Your task to perform on an android device: open app "The Home Depot" (install if not already installed) Image 0: 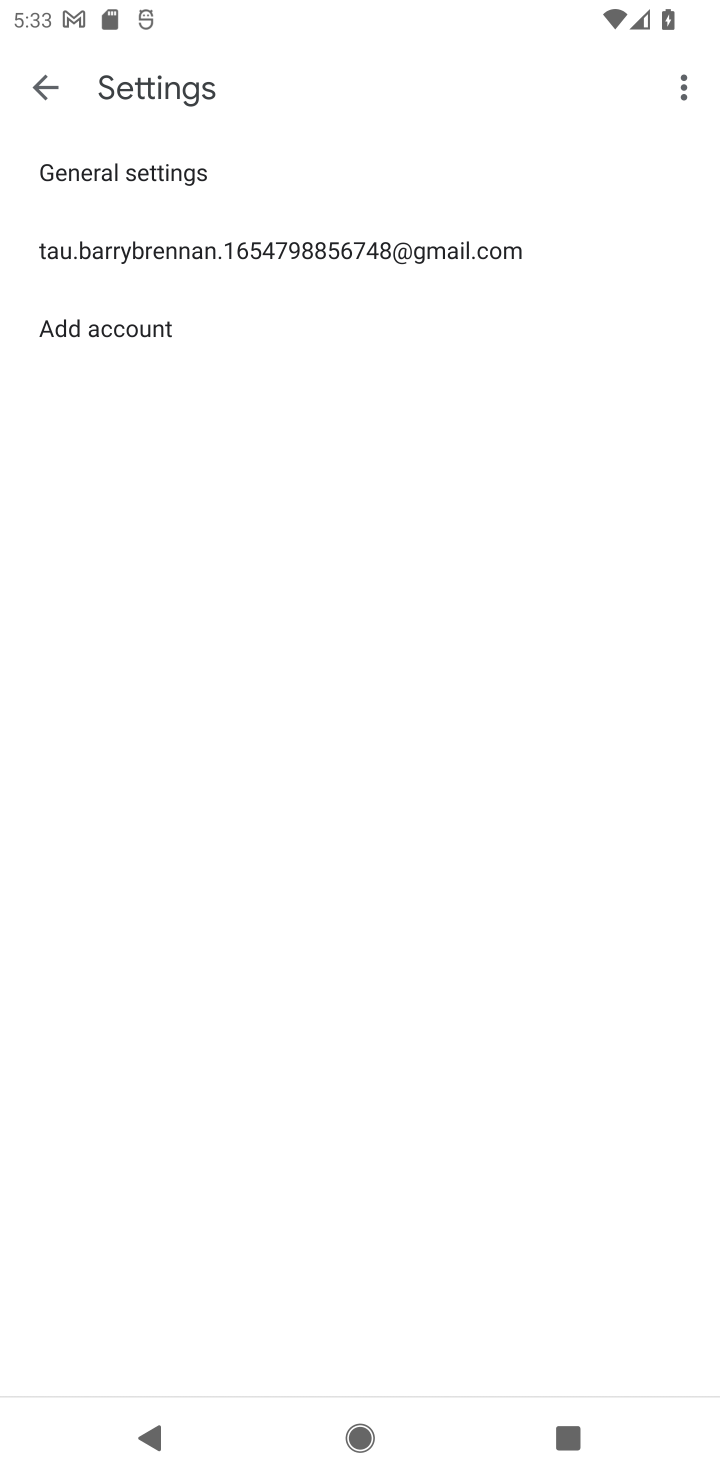
Step 0: press home button
Your task to perform on an android device: open app "The Home Depot" (install if not already installed) Image 1: 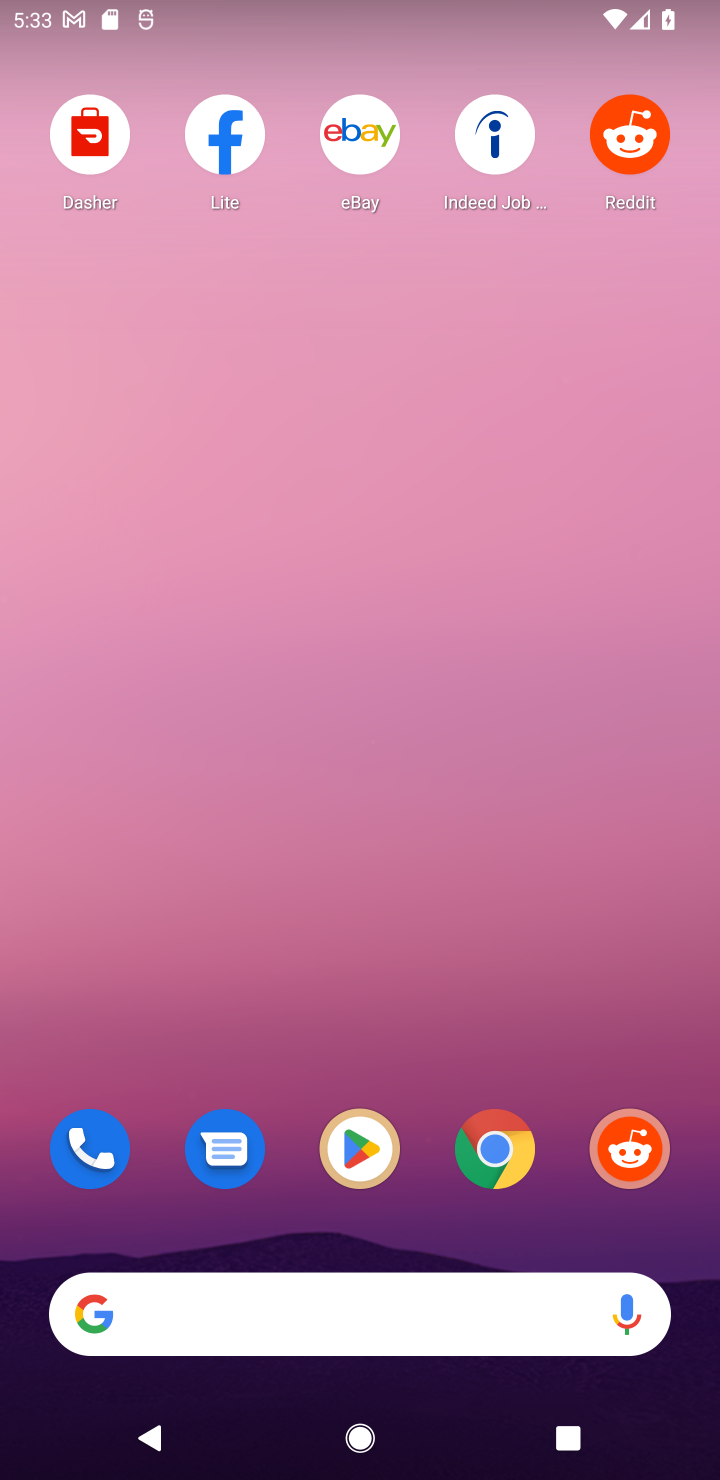
Step 1: press home button
Your task to perform on an android device: open app "The Home Depot" (install if not already installed) Image 2: 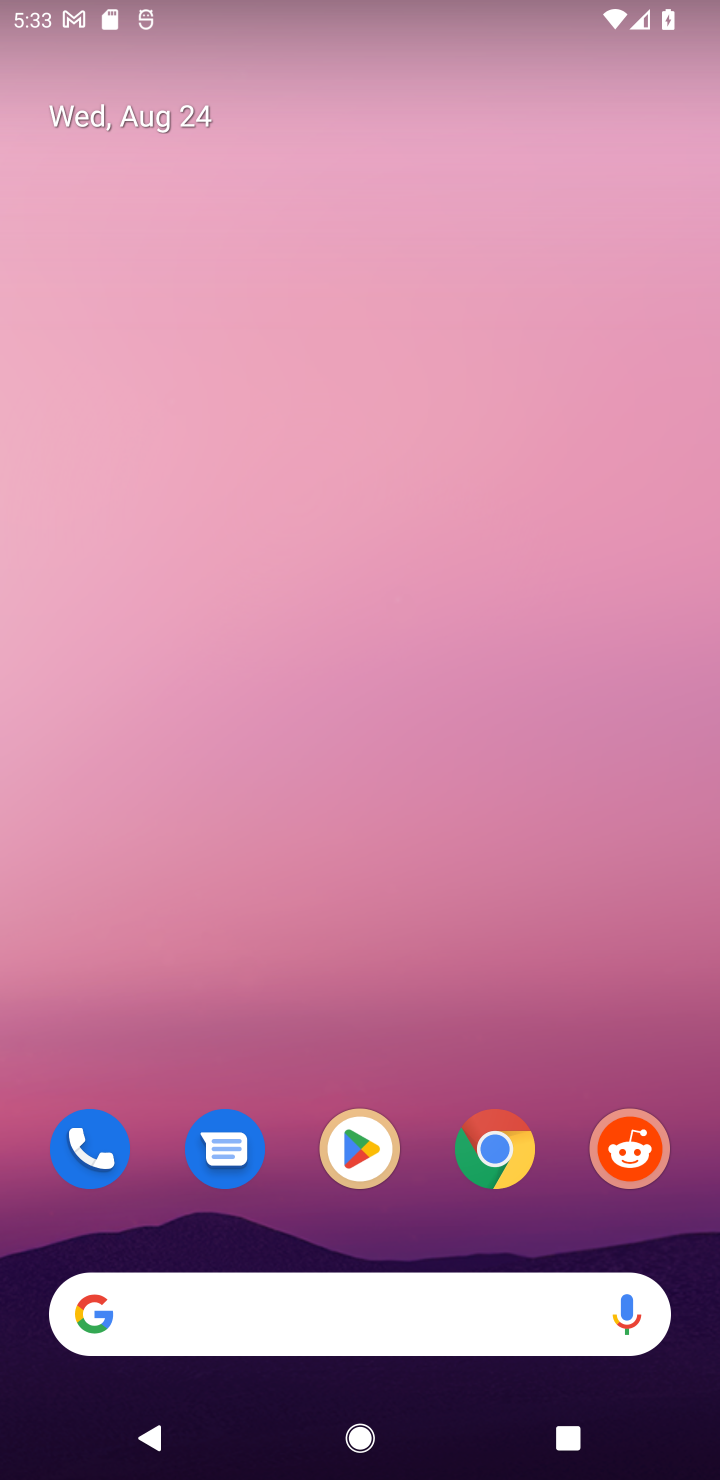
Step 2: click (357, 1154)
Your task to perform on an android device: open app "The Home Depot" (install if not already installed) Image 3: 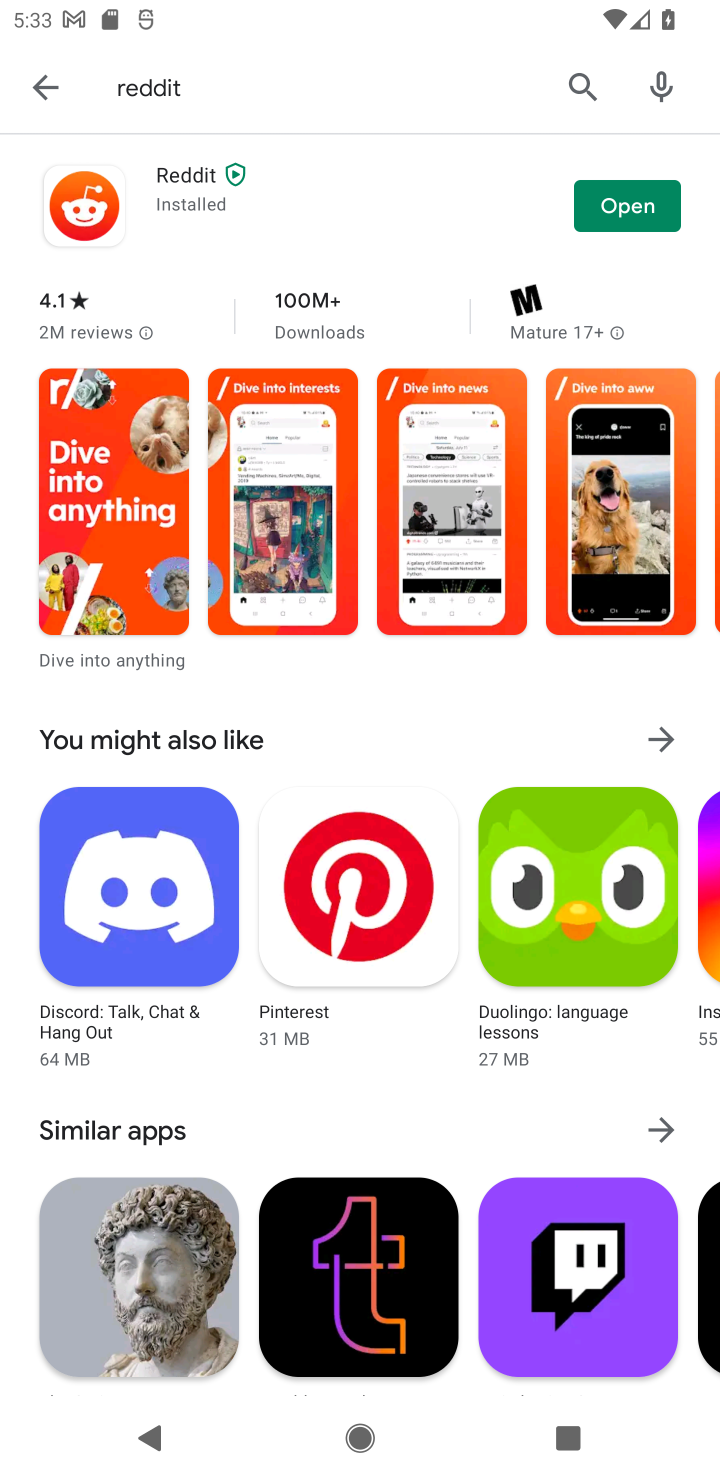
Step 3: click (571, 77)
Your task to perform on an android device: open app "The Home Depot" (install if not already installed) Image 4: 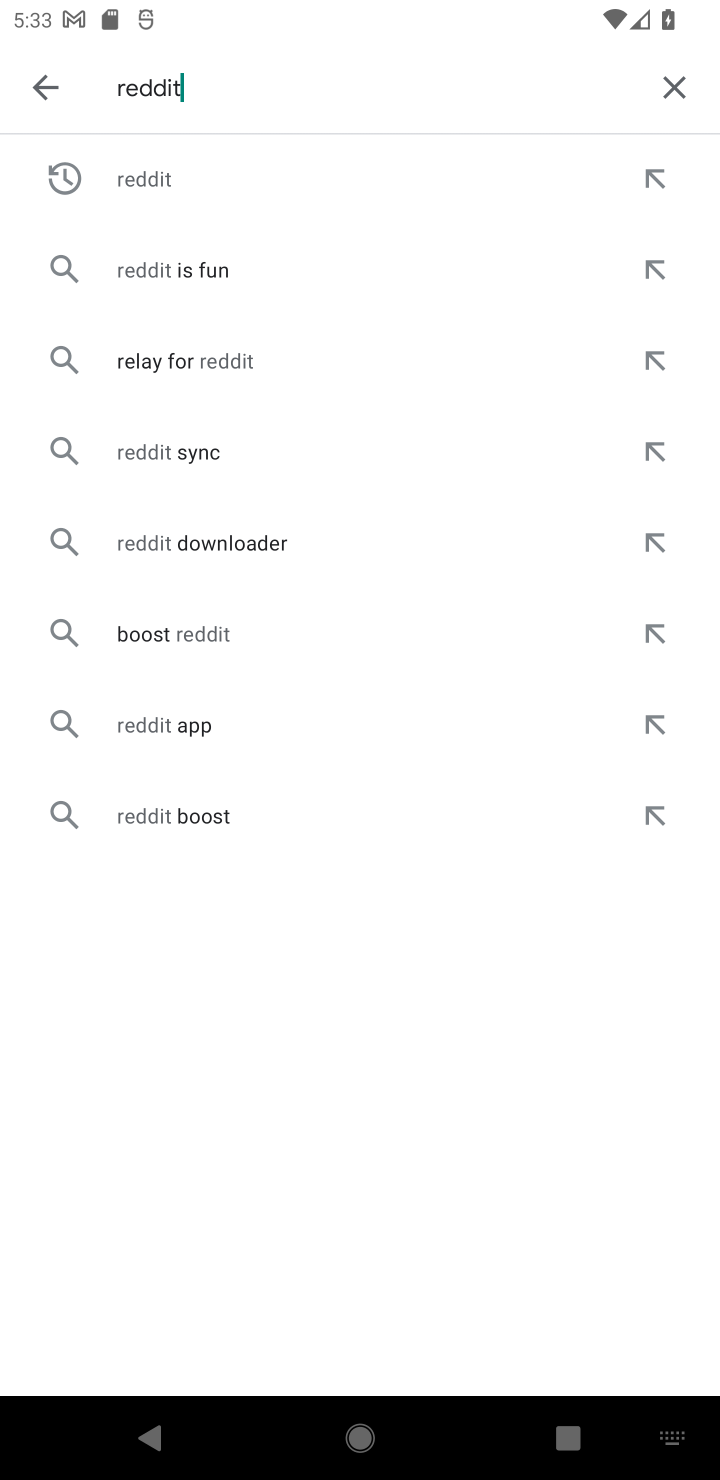
Step 4: click (662, 95)
Your task to perform on an android device: open app "The Home Depot" (install if not already installed) Image 5: 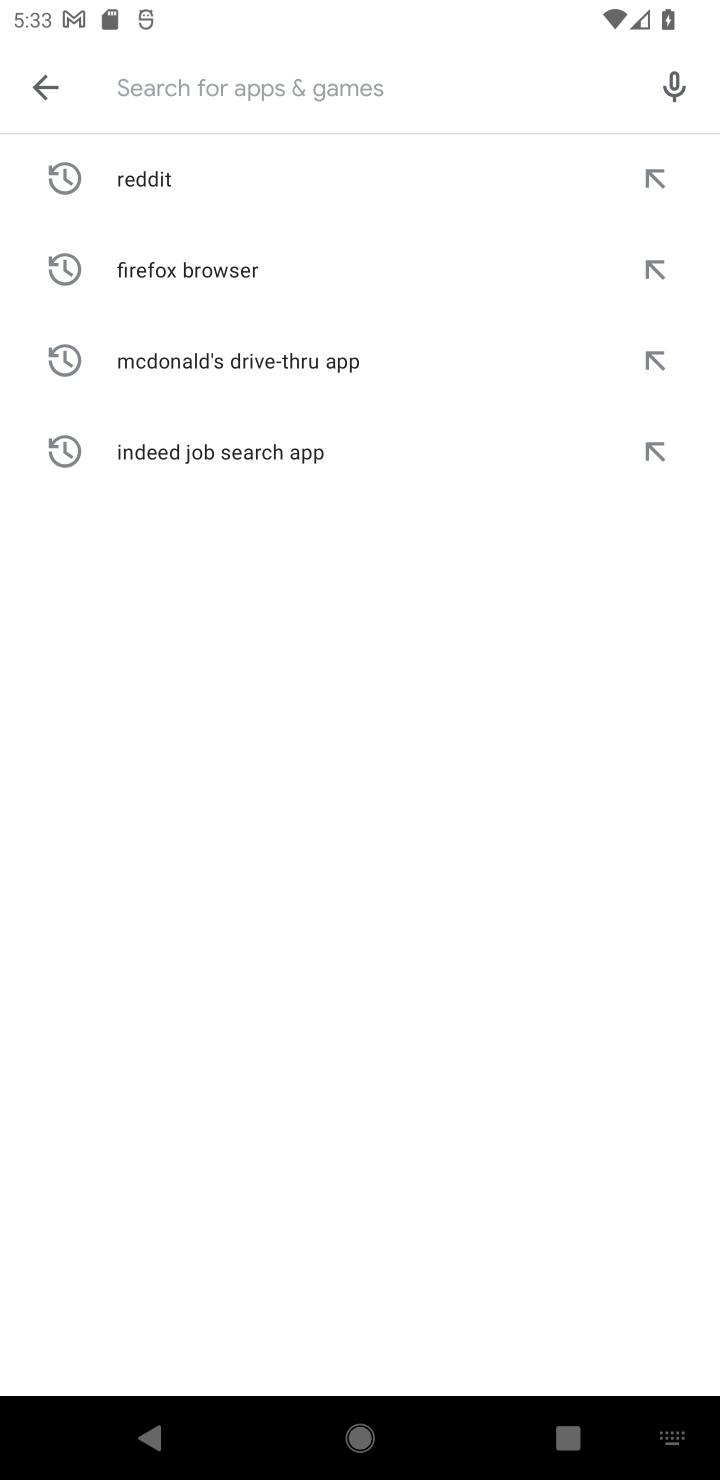
Step 5: type "The Home Depot"
Your task to perform on an android device: open app "The Home Depot" (install if not already installed) Image 6: 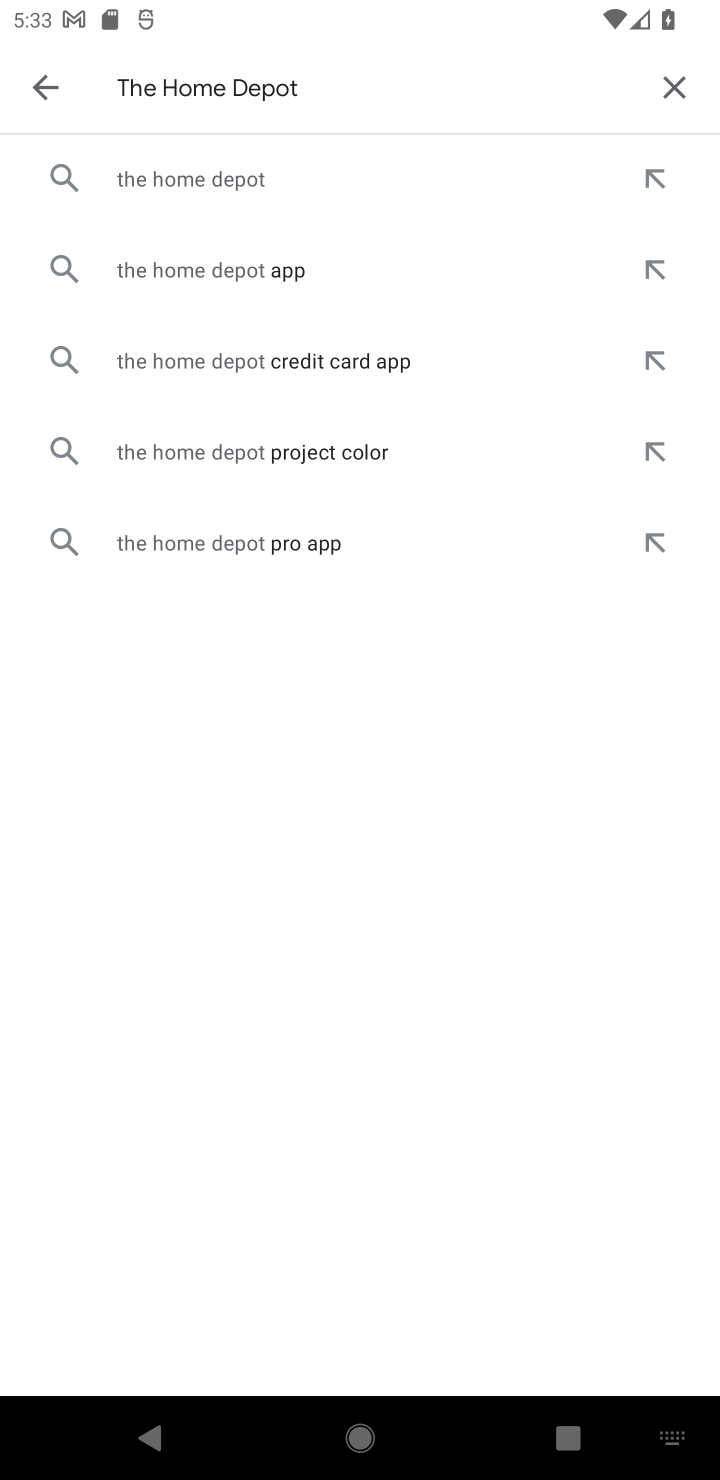
Step 6: click (245, 169)
Your task to perform on an android device: open app "The Home Depot" (install if not already installed) Image 7: 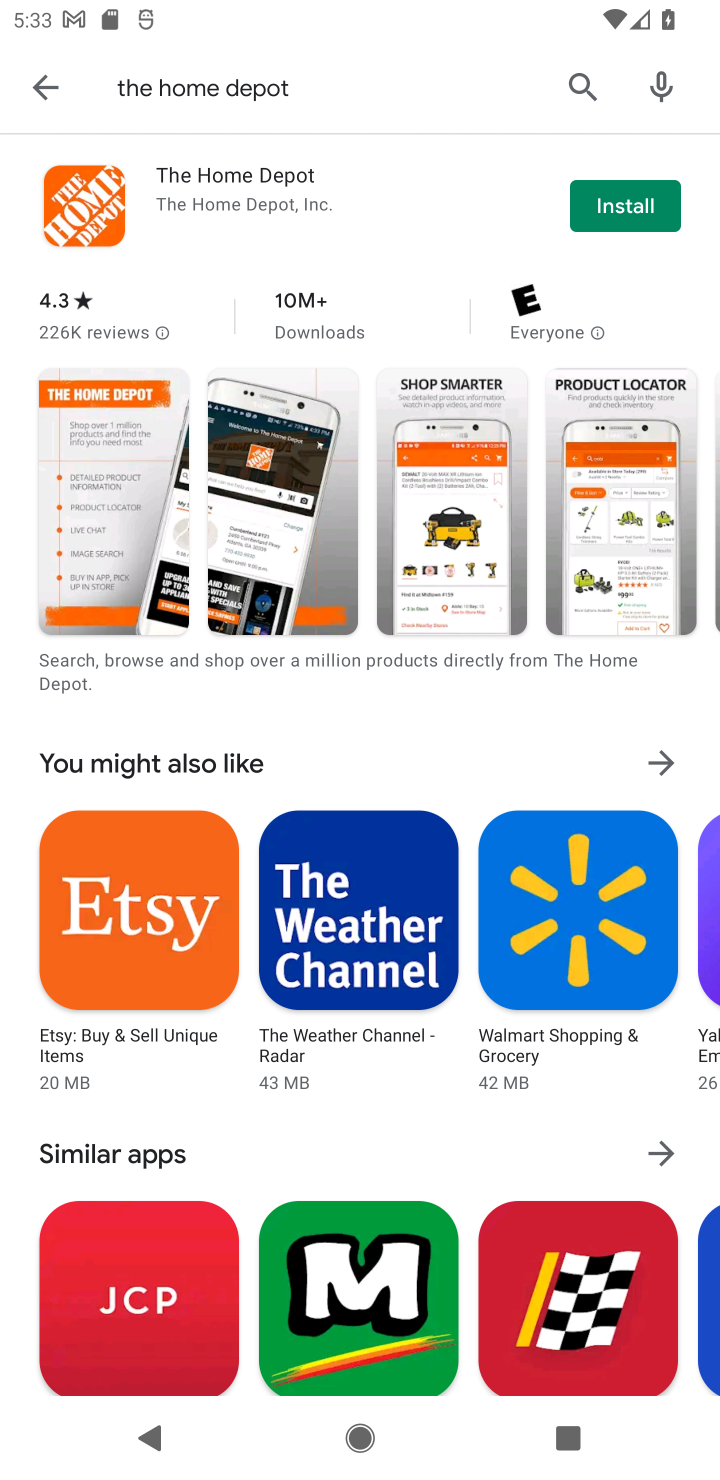
Step 7: click (633, 206)
Your task to perform on an android device: open app "The Home Depot" (install if not already installed) Image 8: 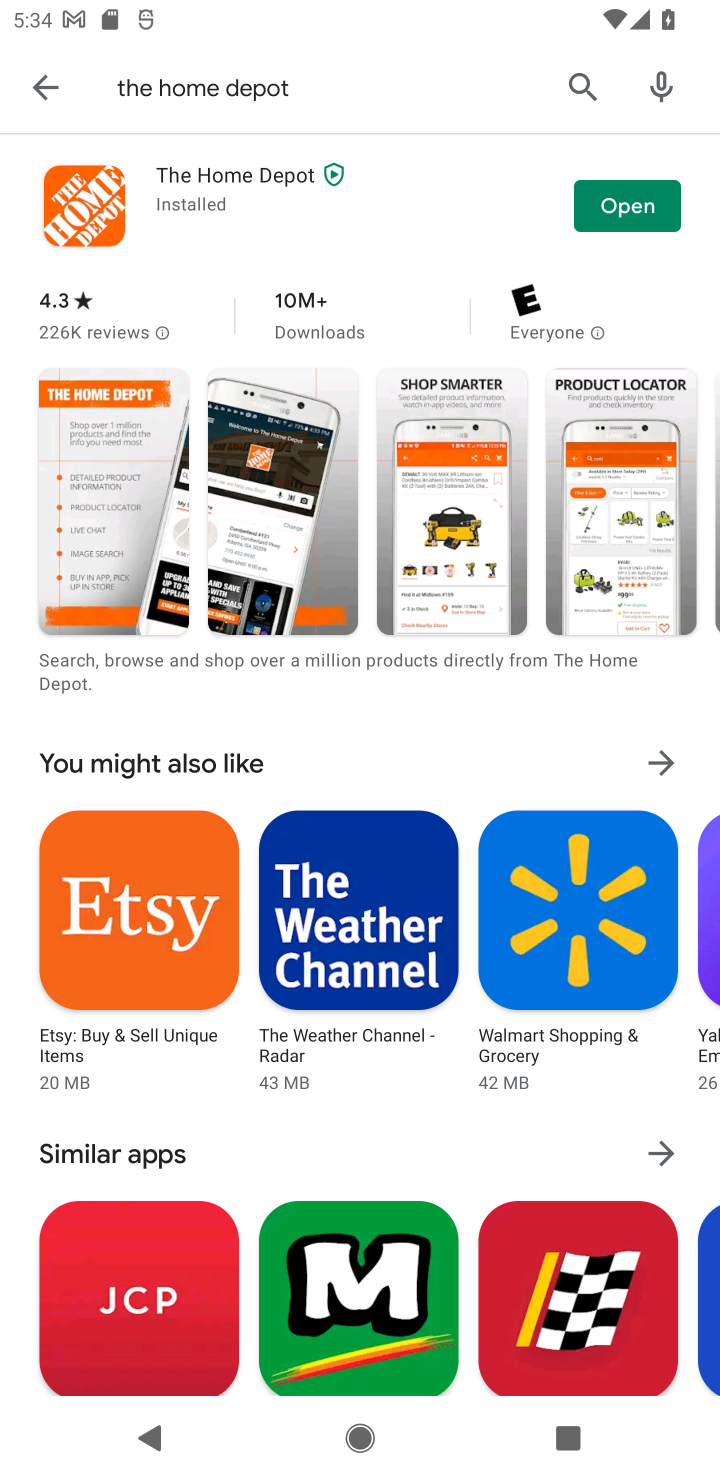
Step 8: click (651, 198)
Your task to perform on an android device: open app "The Home Depot" (install if not already installed) Image 9: 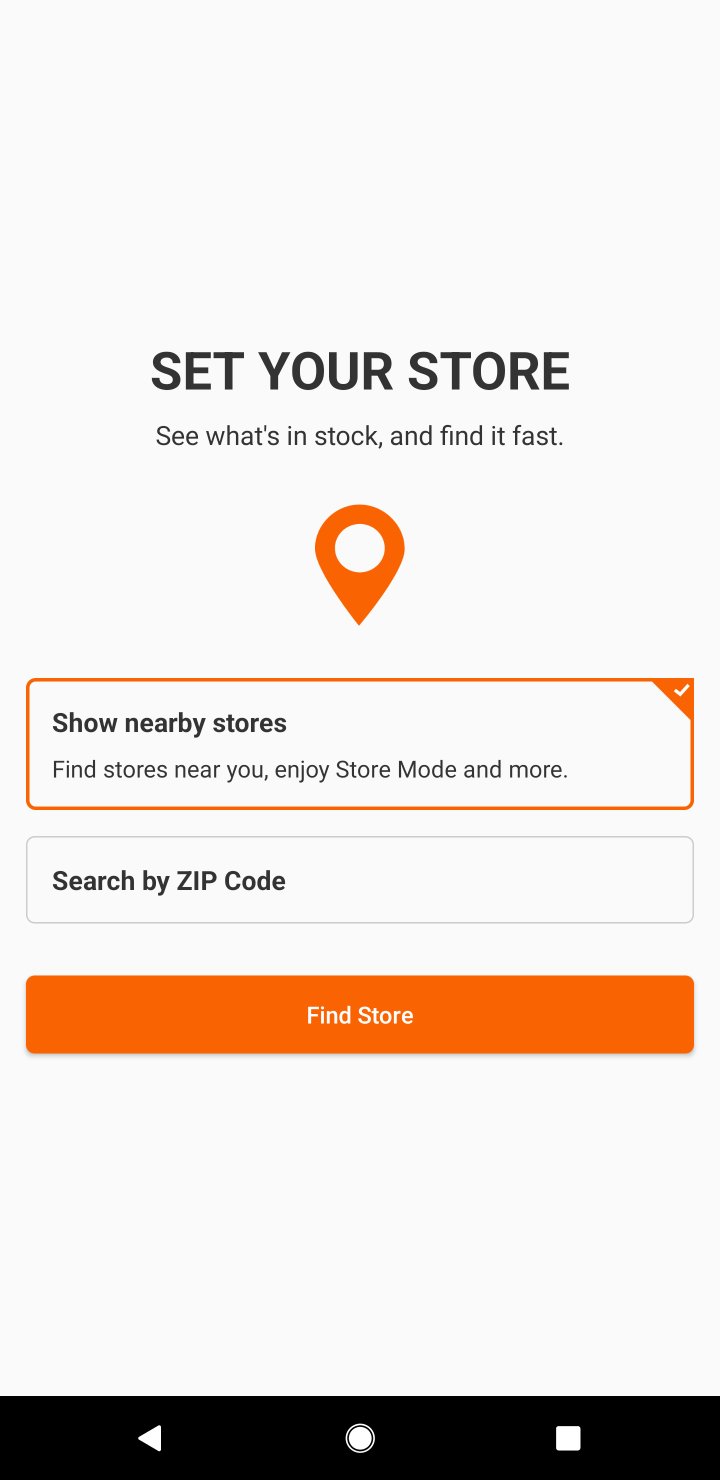
Step 9: task complete